Your task to perform on an android device: Show me popular videos on Youtube Image 0: 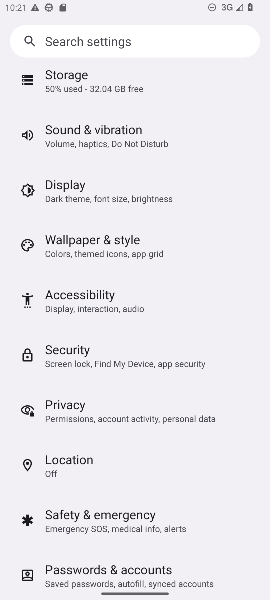
Step 0: press home button
Your task to perform on an android device: Show me popular videos on Youtube Image 1: 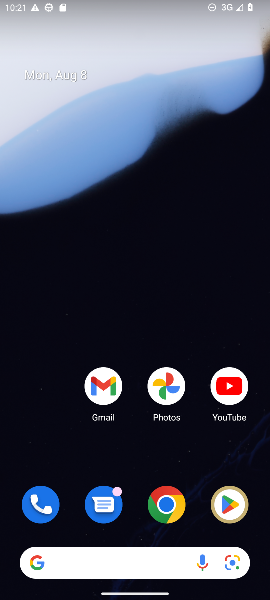
Step 1: drag from (122, 507) to (138, 224)
Your task to perform on an android device: Show me popular videos on Youtube Image 2: 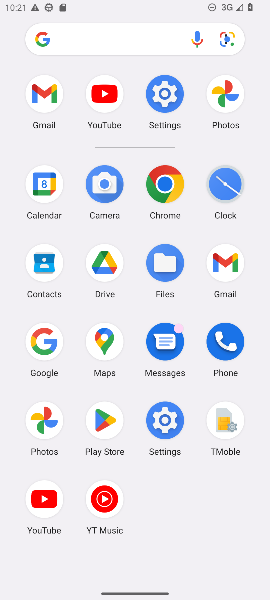
Step 2: click (38, 497)
Your task to perform on an android device: Show me popular videos on Youtube Image 3: 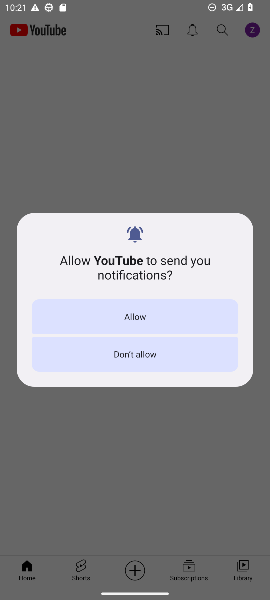
Step 3: click (169, 315)
Your task to perform on an android device: Show me popular videos on Youtube Image 4: 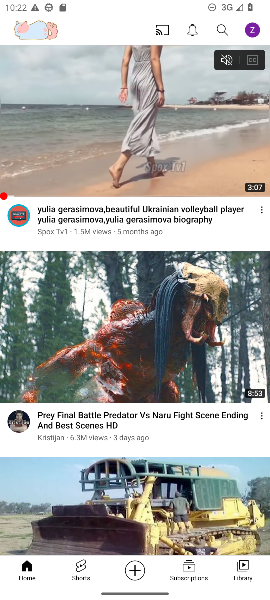
Step 4: drag from (100, 97) to (104, 417)
Your task to perform on an android device: Show me popular videos on Youtube Image 5: 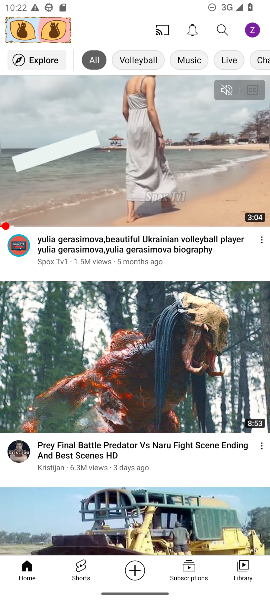
Step 5: click (28, 58)
Your task to perform on an android device: Show me popular videos on Youtube Image 6: 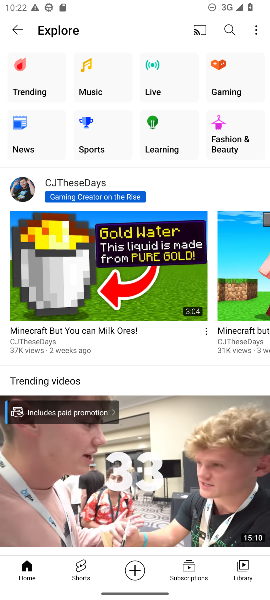
Step 6: click (29, 86)
Your task to perform on an android device: Show me popular videos on Youtube Image 7: 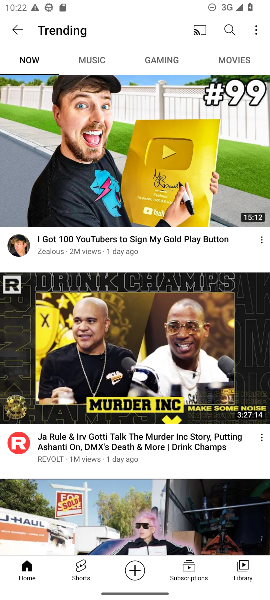
Step 7: task complete